Your task to perform on an android device: allow notifications from all sites in the chrome app Image 0: 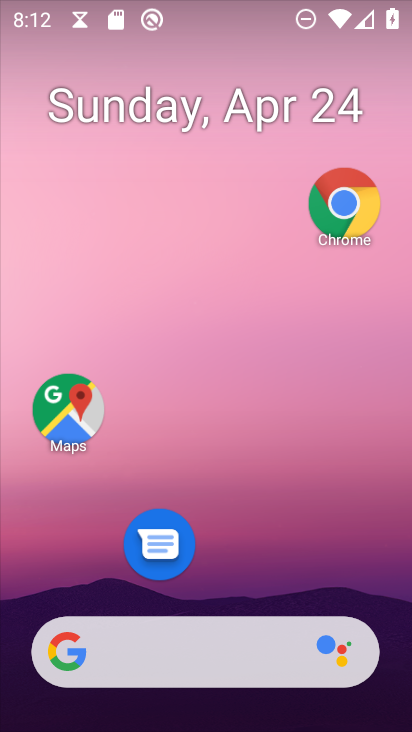
Step 0: drag from (129, 656) to (253, 108)
Your task to perform on an android device: allow notifications from all sites in the chrome app Image 1: 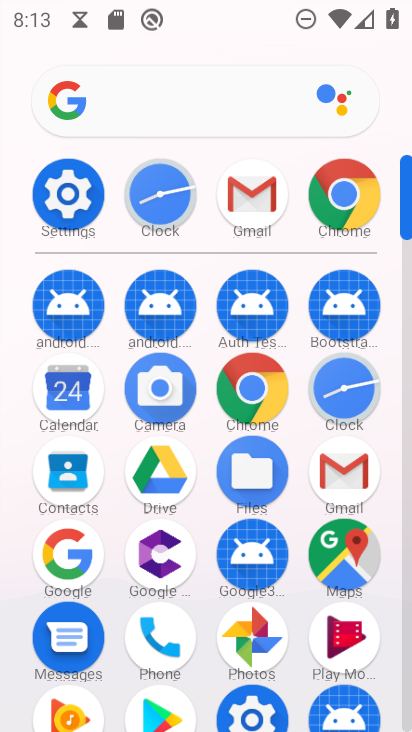
Step 1: click (341, 209)
Your task to perform on an android device: allow notifications from all sites in the chrome app Image 2: 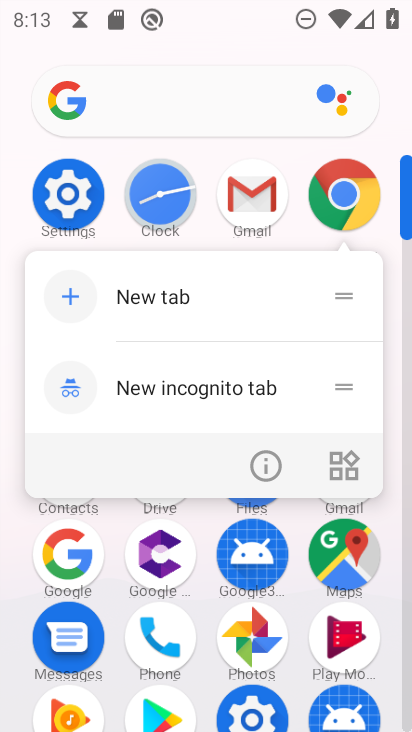
Step 2: click (341, 195)
Your task to perform on an android device: allow notifications from all sites in the chrome app Image 3: 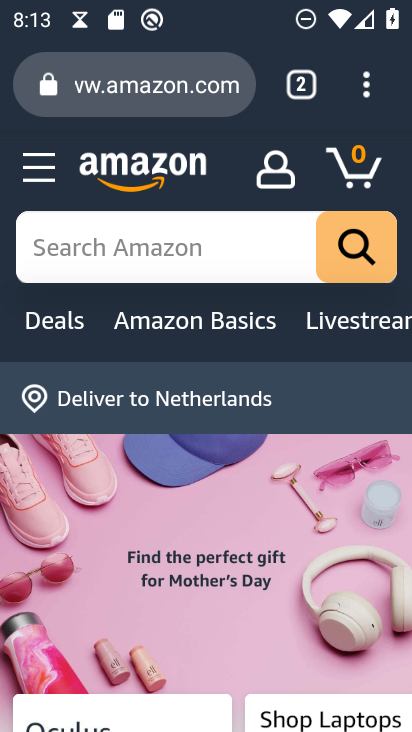
Step 3: drag from (369, 86) to (108, 598)
Your task to perform on an android device: allow notifications from all sites in the chrome app Image 4: 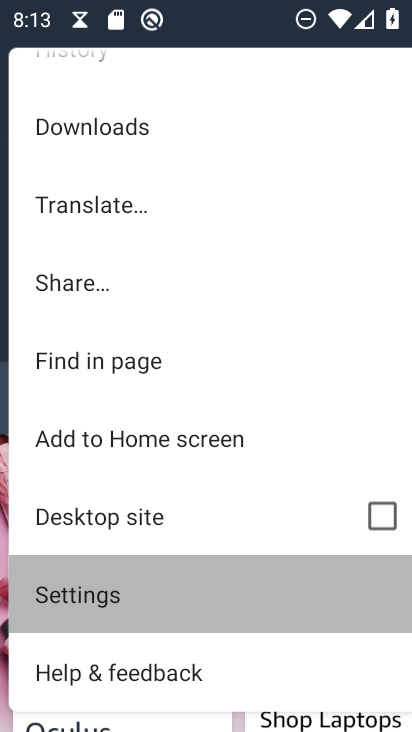
Step 4: click (108, 598)
Your task to perform on an android device: allow notifications from all sites in the chrome app Image 5: 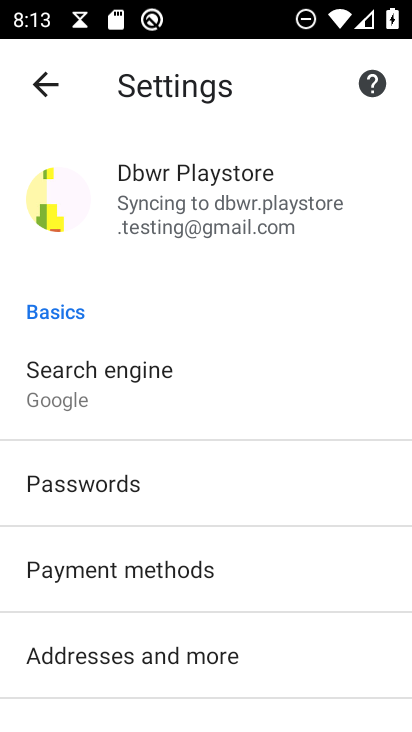
Step 5: drag from (135, 630) to (243, 138)
Your task to perform on an android device: allow notifications from all sites in the chrome app Image 6: 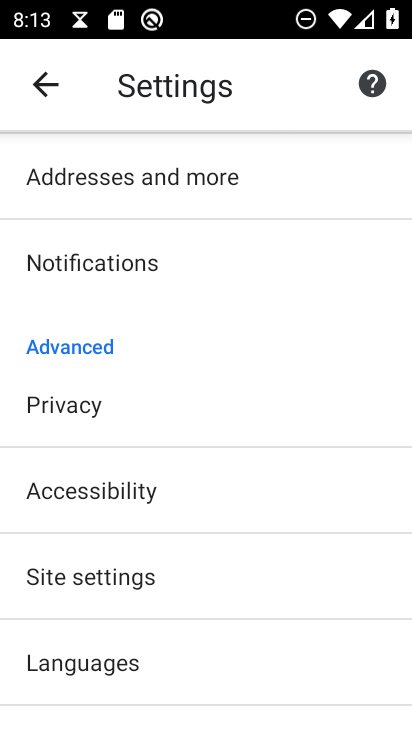
Step 6: click (128, 588)
Your task to perform on an android device: allow notifications from all sites in the chrome app Image 7: 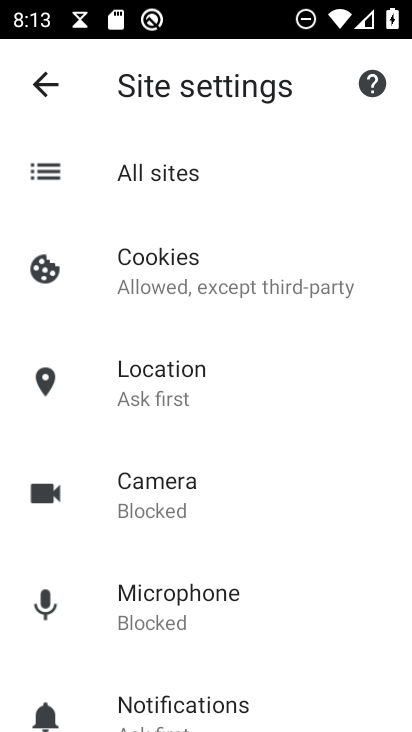
Step 7: drag from (204, 669) to (287, 261)
Your task to perform on an android device: allow notifications from all sites in the chrome app Image 8: 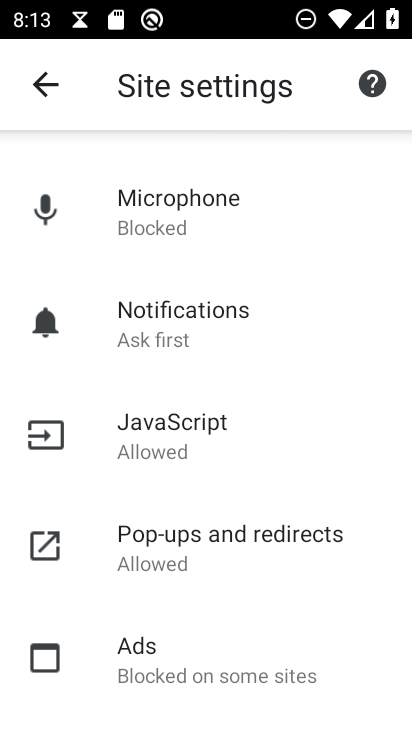
Step 8: click (203, 302)
Your task to perform on an android device: allow notifications from all sites in the chrome app Image 9: 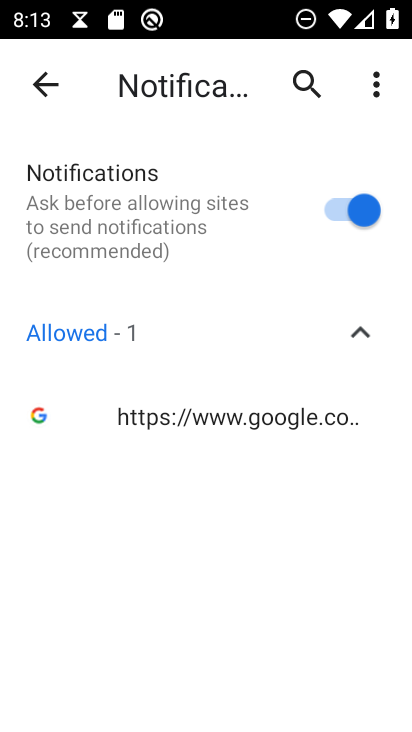
Step 9: task complete